Your task to perform on an android device: Open Reddit.com Image 0: 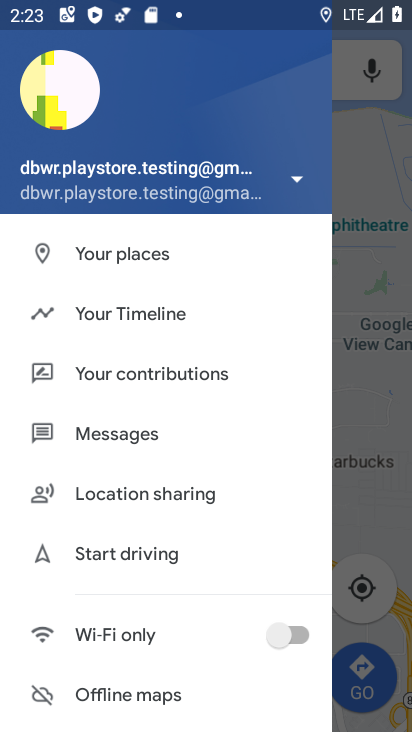
Step 0: press home button
Your task to perform on an android device: Open Reddit.com Image 1: 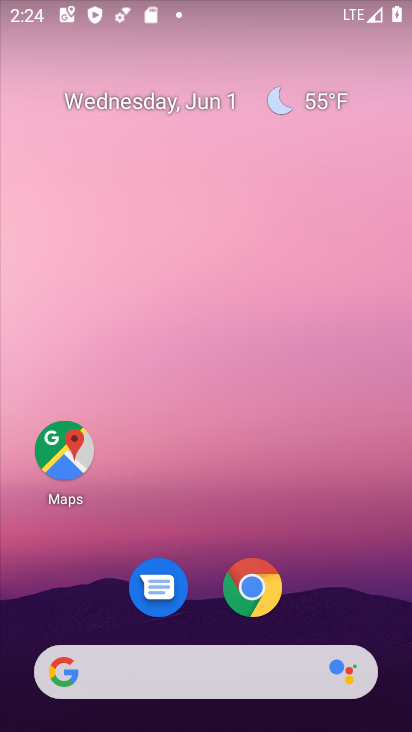
Step 1: click (248, 591)
Your task to perform on an android device: Open Reddit.com Image 2: 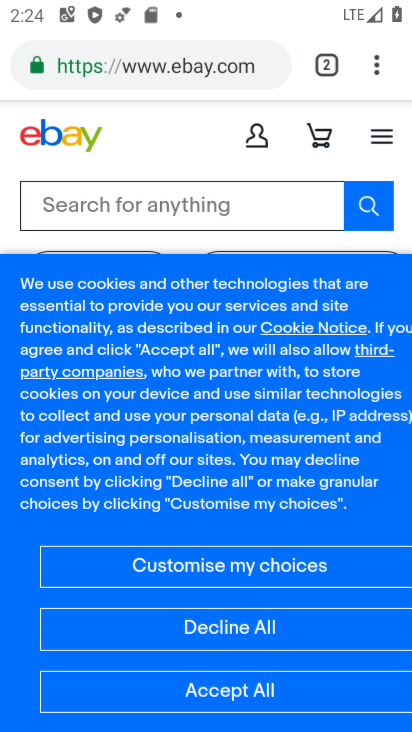
Step 2: click (189, 71)
Your task to perform on an android device: Open Reddit.com Image 3: 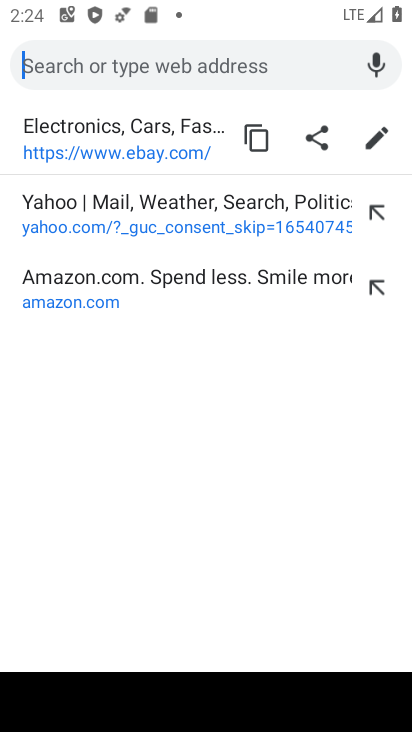
Step 3: type "reddit.com"
Your task to perform on an android device: Open Reddit.com Image 4: 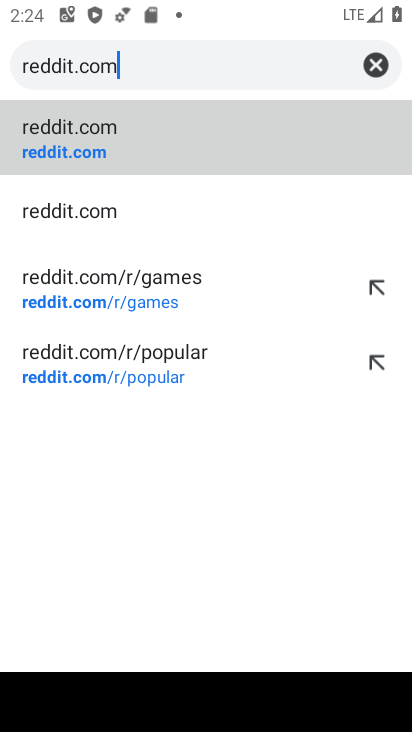
Step 4: click (106, 138)
Your task to perform on an android device: Open Reddit.com Image 5: 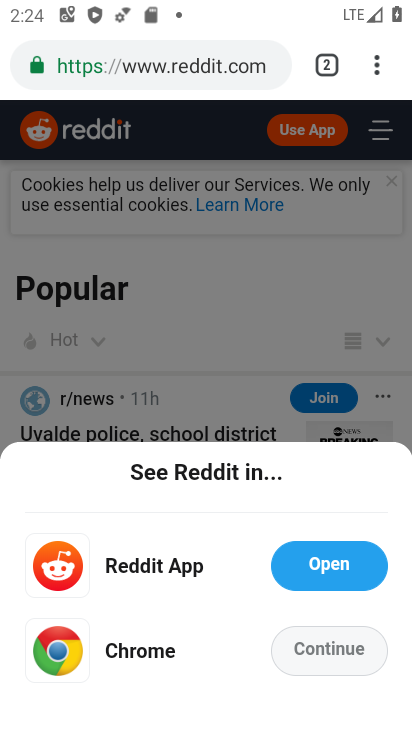
Step 5: click (316, 640)
Your task to perform on an android device: Open Reddit.com Image 6: 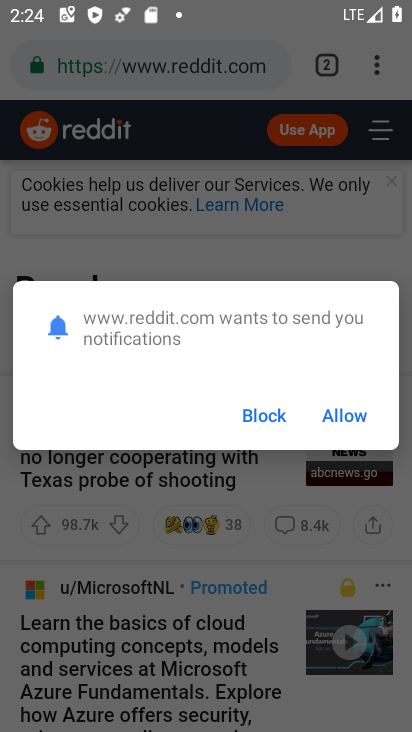
Step 6: task complete